Your task to perform on an android device: Go to Amazon Image 0: 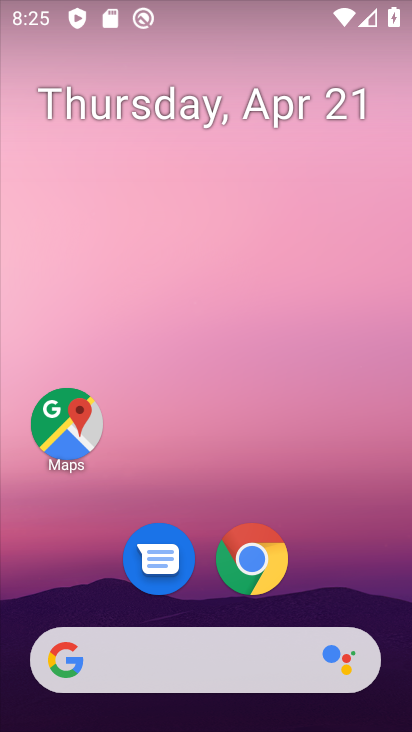
Step 0: click (281, 567)
Your task to perform on an android device: Go to Amazon Image 1: 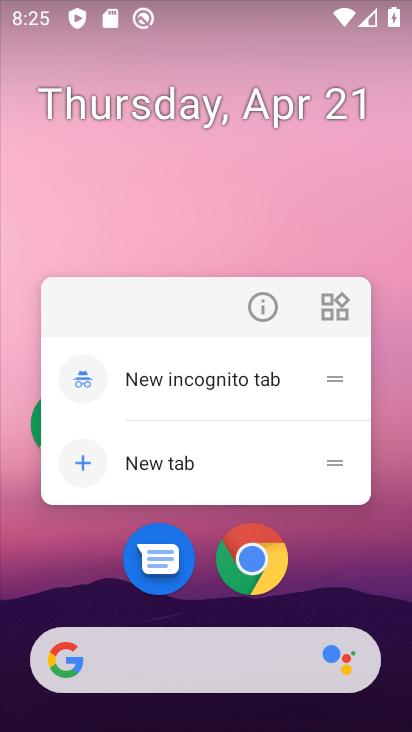
Step 1: click (257, 557)
Your task to perform on an android device: Go to Amazon Image 2: 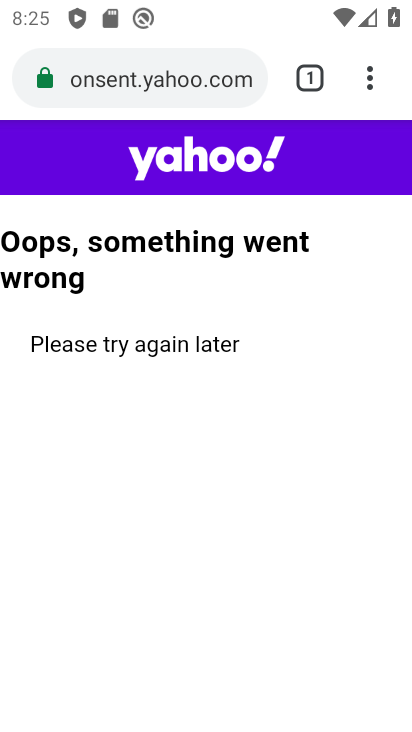
Step 2: click (186, 76)
Your task to perform on an android device: Go to Amazon Image 3: 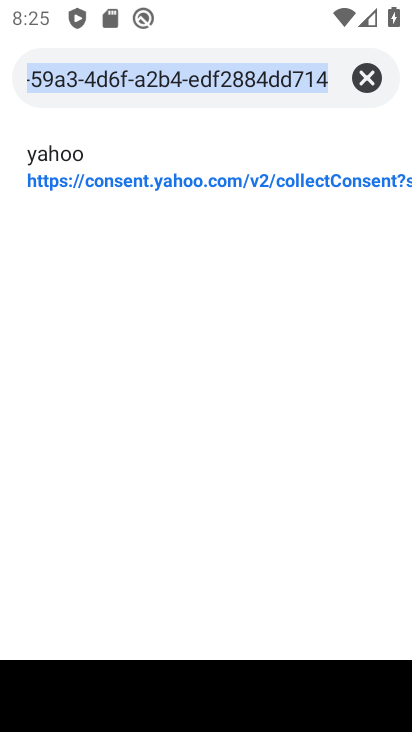
Step 3: type "Amazon"
Your task to perform on an android device: Go to Amazon Image 4: 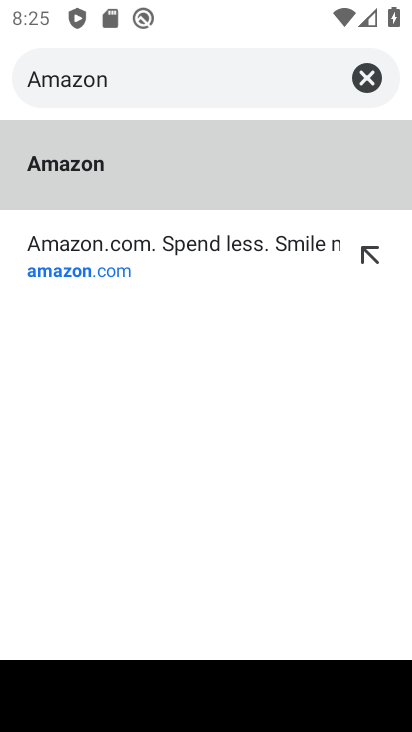
Step 4: click (93, 270)
Your task to perform on an android device: Go to Amazon Image 5: 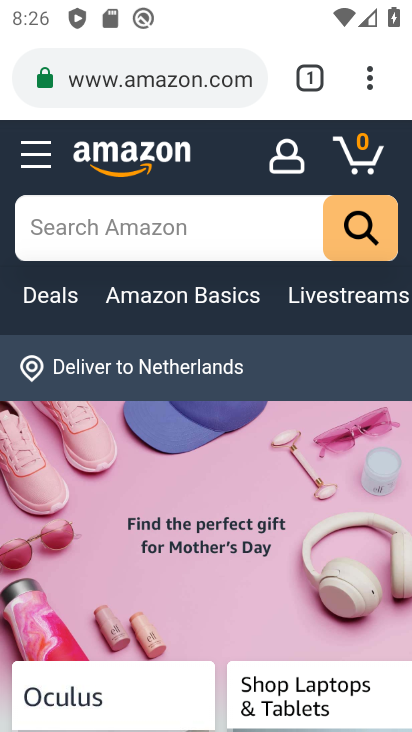
Step 5: task complete